Your task to perform on an android device: Go to display settings Image 0: 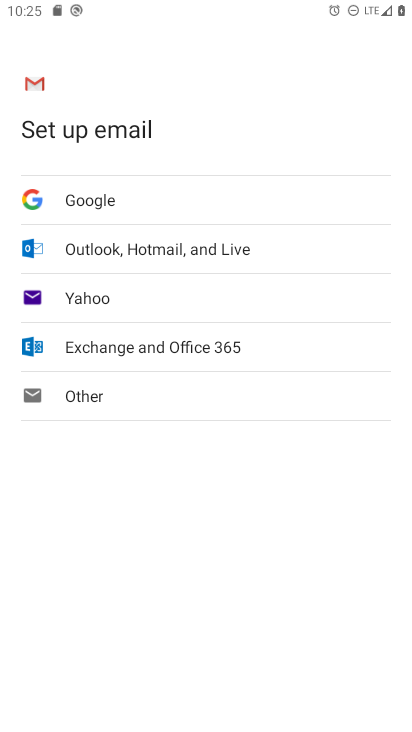
Step 0: press home button
Your task to perform on an android device: Go to display settings Image 1: 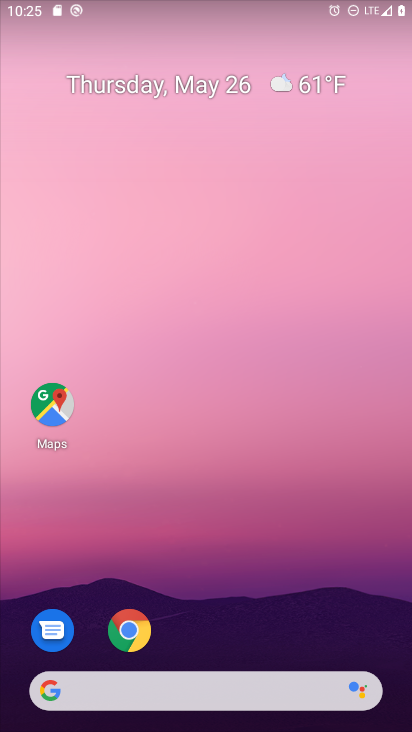
Step 1: drag from (175, 663) to (174, 185)
Your task to perform on an android device: Go to display settings Image 2: 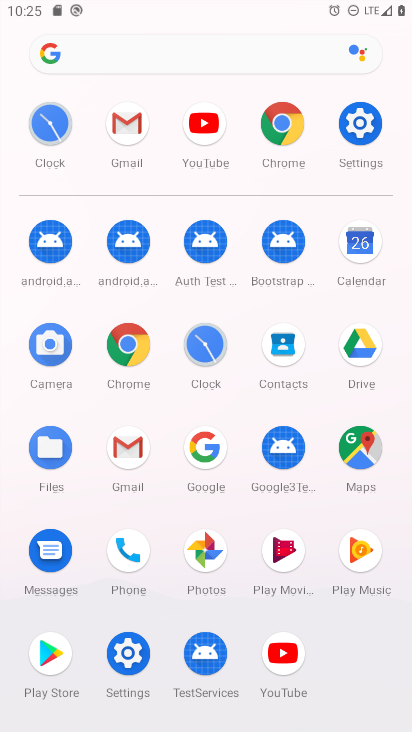
Step 2: click (355, 136)
Your task to perform on an android device: Go to display settings Image 3: 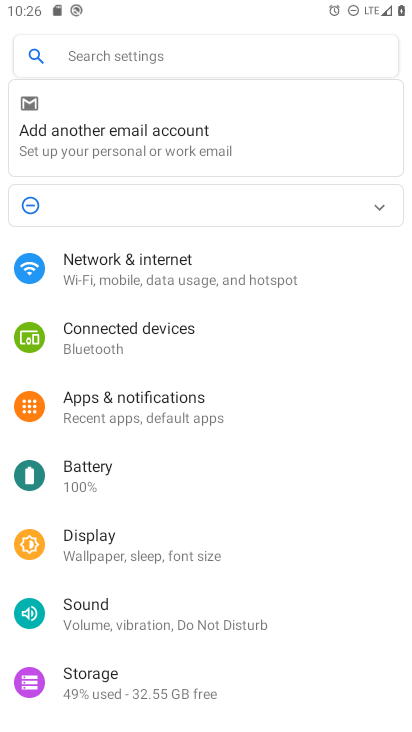
Step 3: click (104, 543)
Your task to perform on an android device: Go to display settings Image 4: 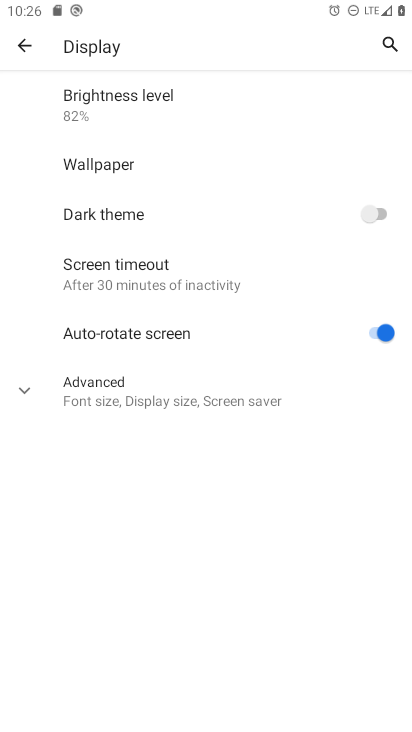
Step 4: task complete